Your task to perform on an android device: Search for logitech g pro on bestbuy.com, select the first entry, and add it to the cart. Image 0: 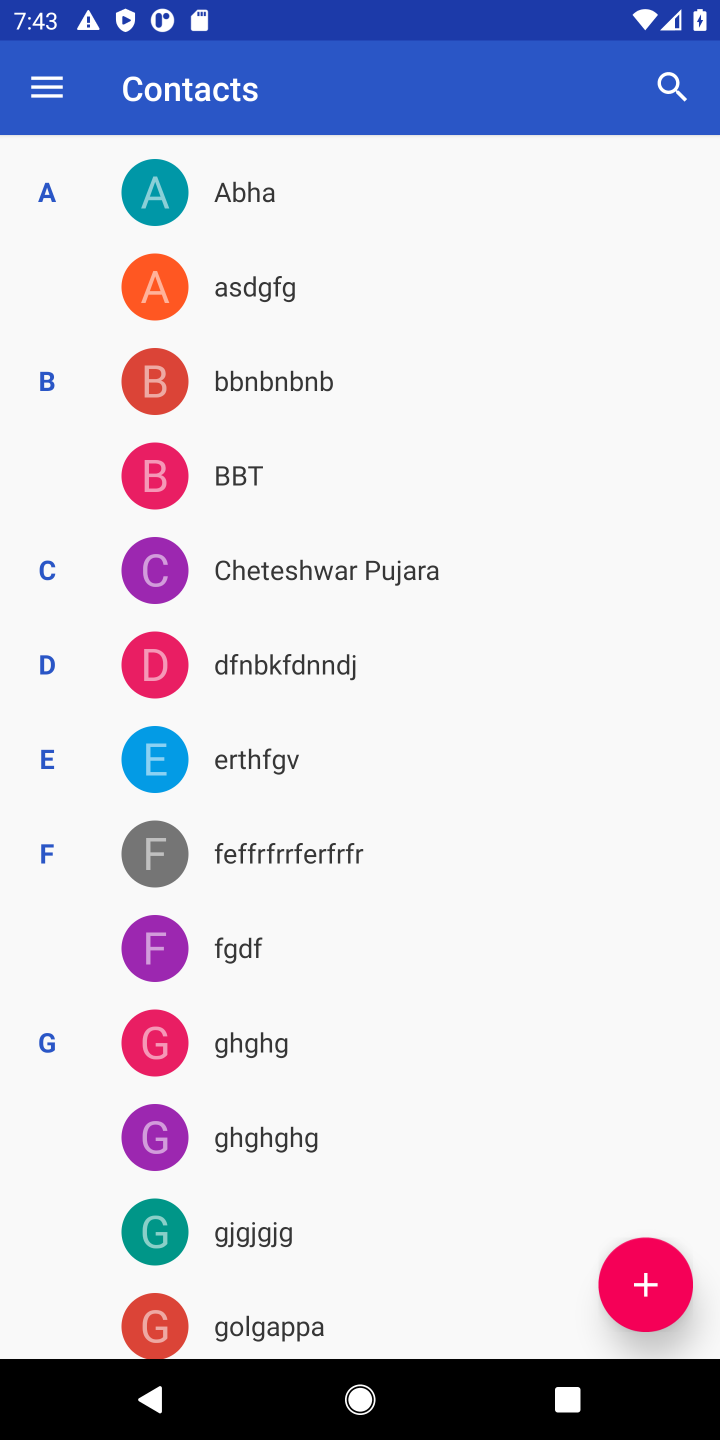
Step 0: press home button
Your task to perform on an android device: Search for logitech g pro on bestbuy.com, select the first entry, and add it to the cart. Image 1: 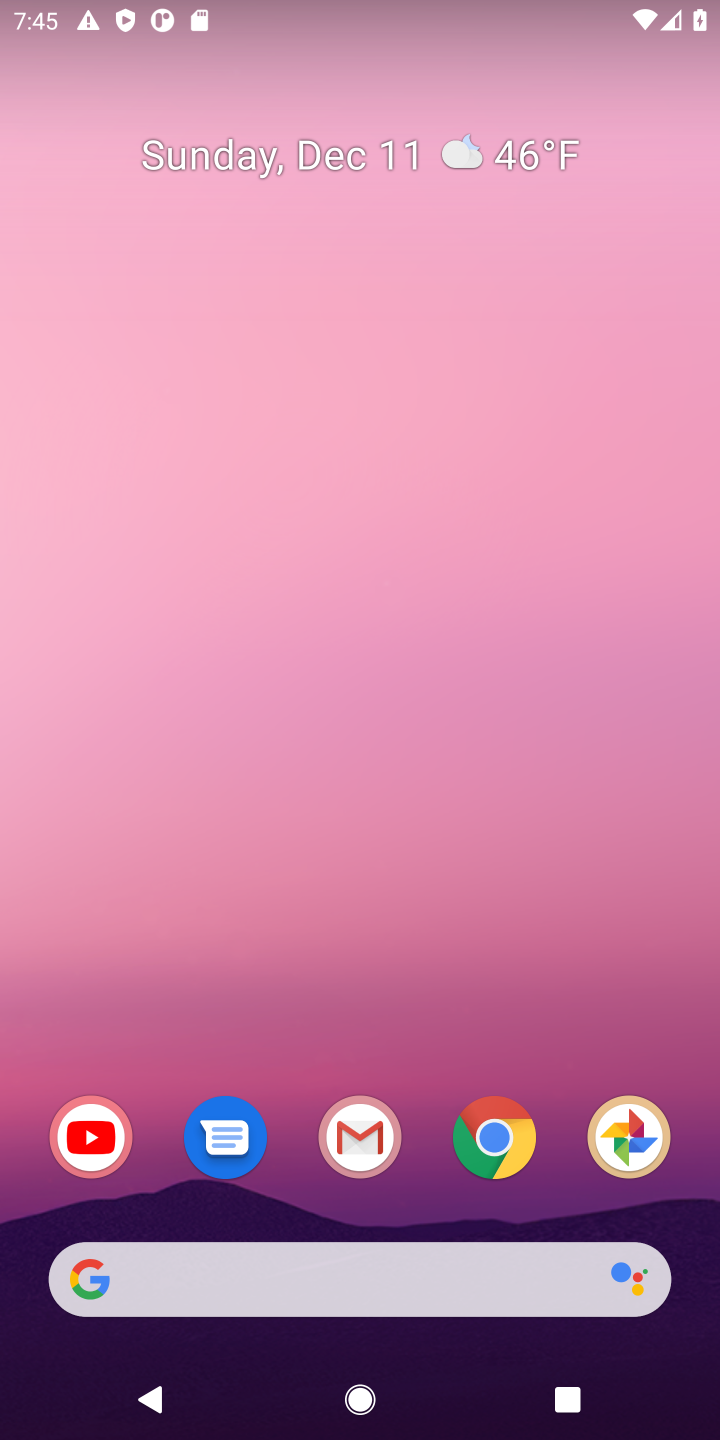
Step 1: click (500, 1138)
Your task to perform on an android device: Search for logitech g pro on bestbuy.com, select the first entry, and add it to the cart. Image 2: 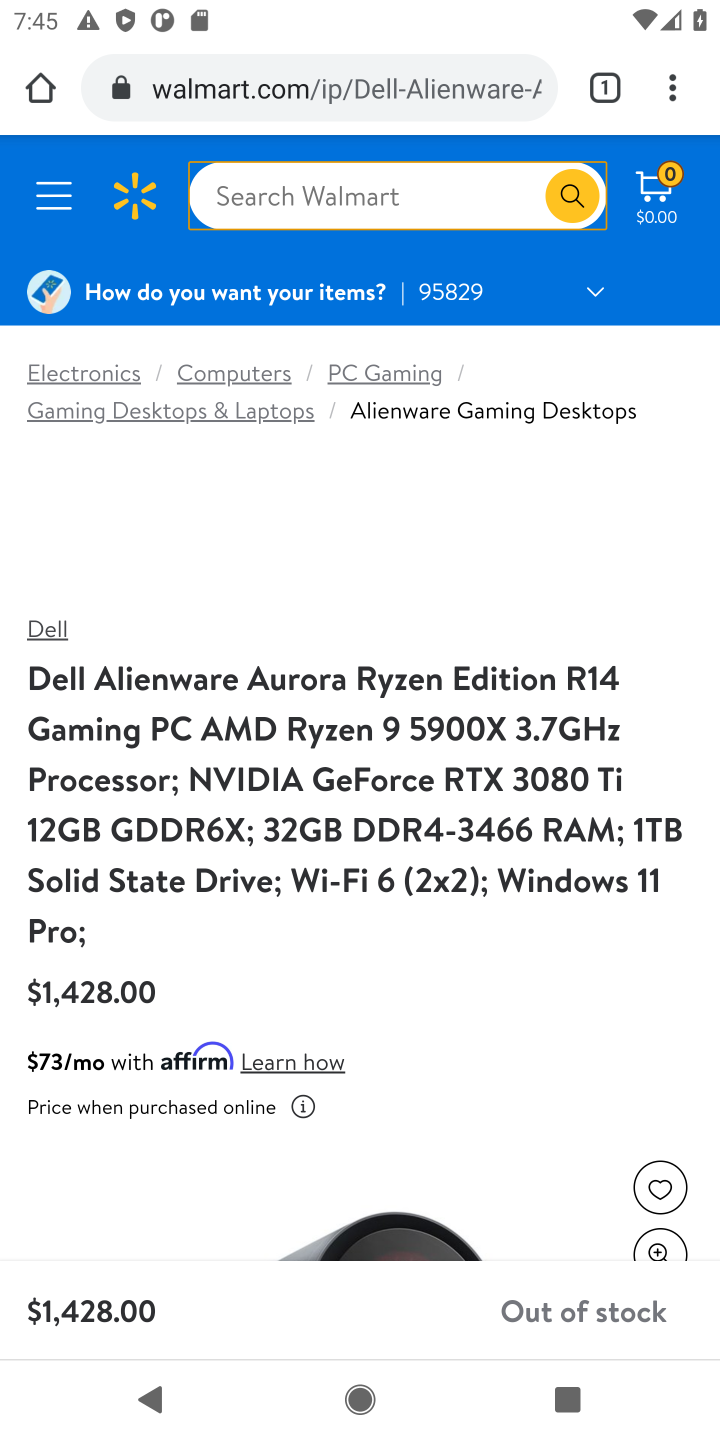
Step 2: click (308, 76)
Your task to perform on an android device: Search for logitech g pro on bestbuy.com, select the first entry, and add it to the cart. Image 3: 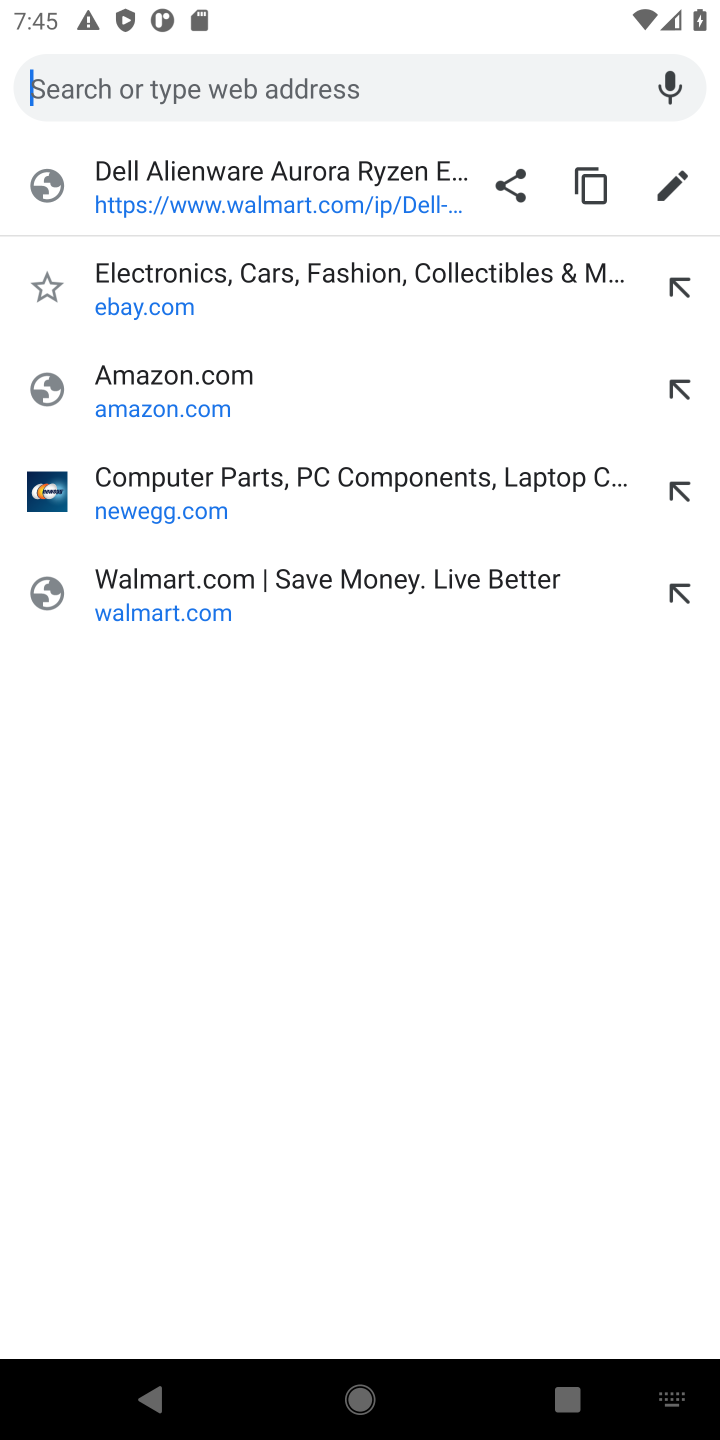
Step 3: click (357, 87)
Your task to perform on an android device: Search for logitech g pro on bestbuy.com, select the first entry, and add it to the cart. Image 4: 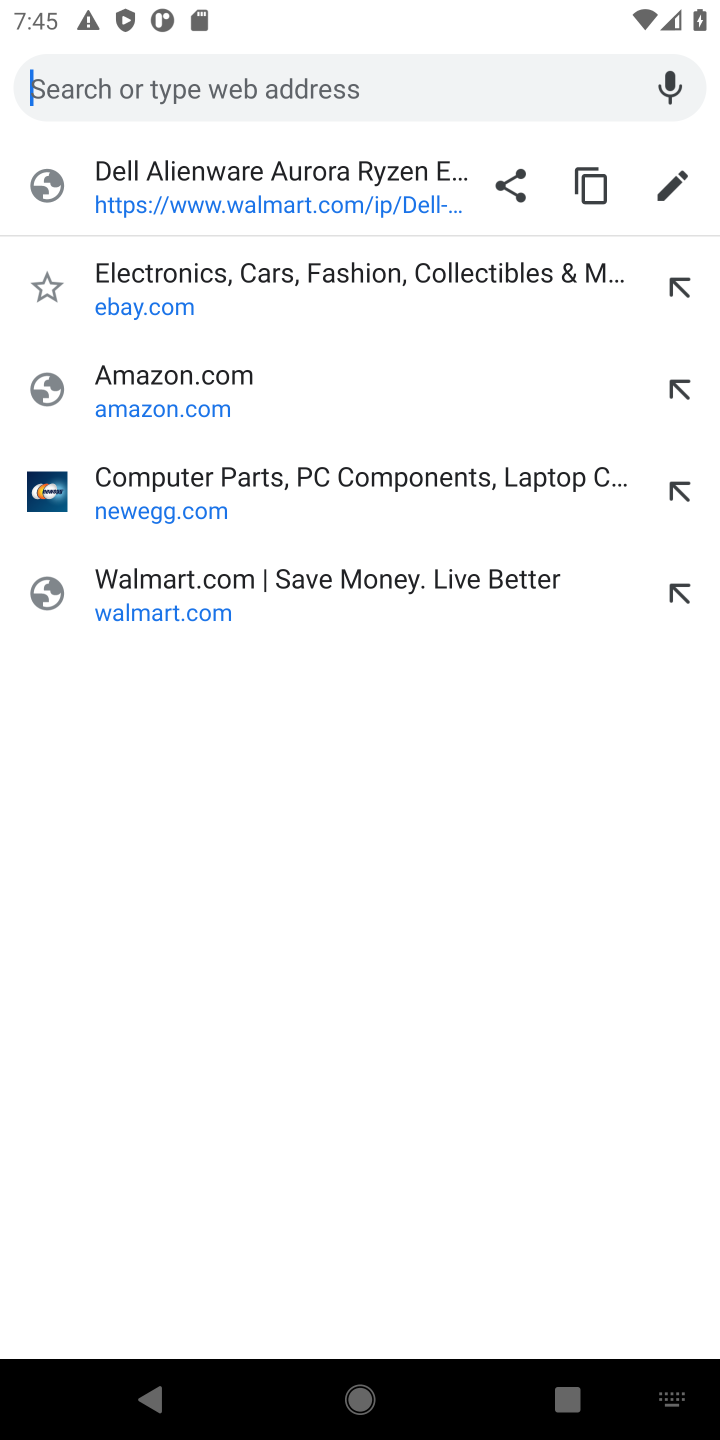
Step 4: click (441, 69)
Your task to perform on an android device: Search for logitech g pro on bestbuy.com, select the first entry, and add it to the cart. Image 5: 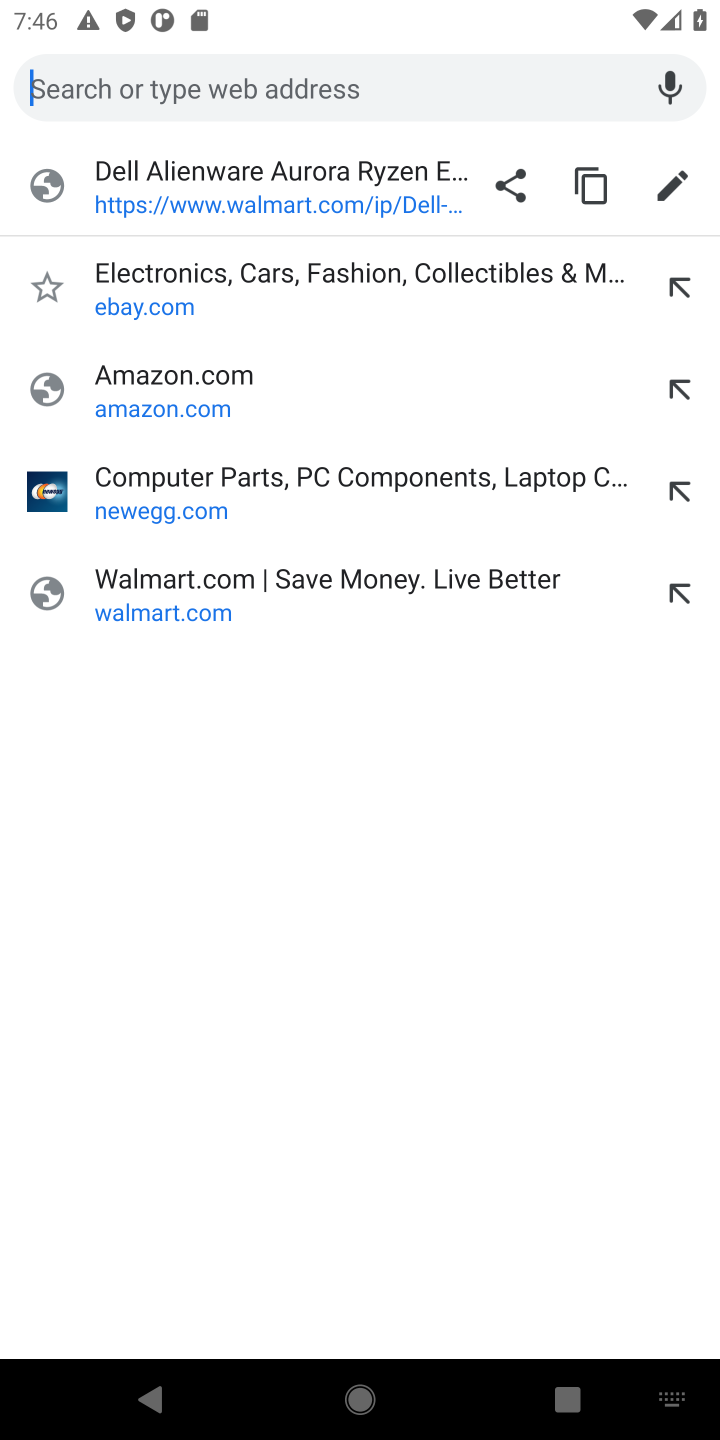
Step 5: type "BESTBUY"
Your task to perform on an android device: Search for logitech g pro on bestbuy.com, select the first entry, and add it to the cart. Image 6: 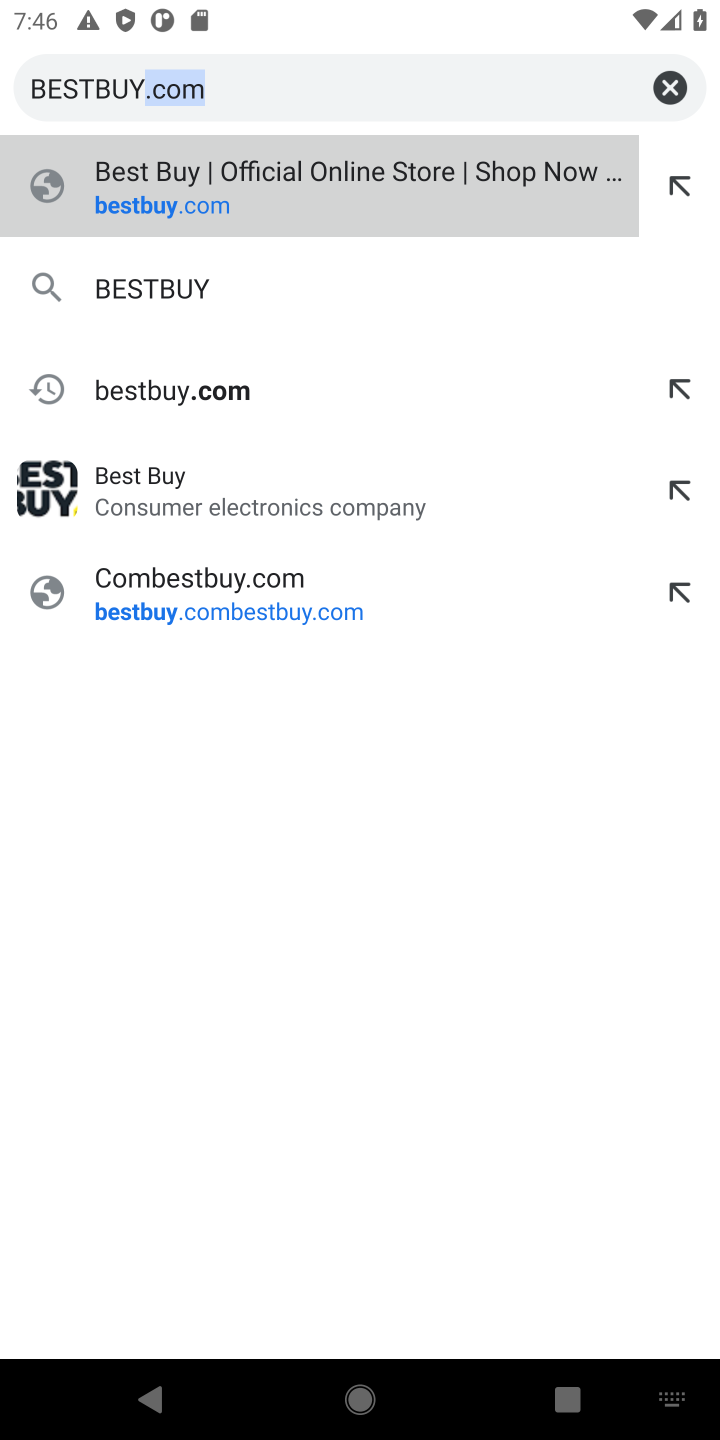
Step 6: click (311, 189)
Your task to perform on an android device: Search for logitech g pro on bestbuy.com, select the first entry, and add it to the cart. Image 7: 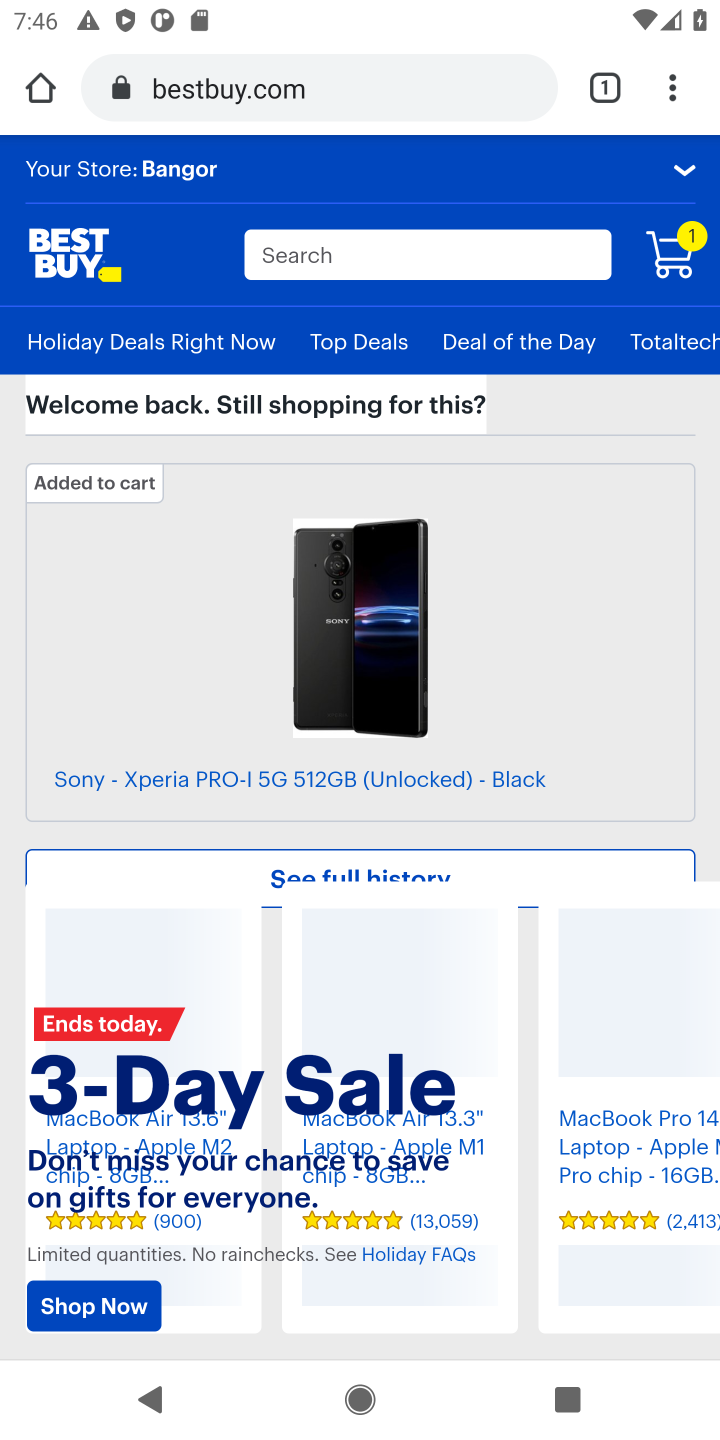
Step 7: click (349, 250)
Your task to perform on an android device: Search for logitech g pro on bestbuy.com, select the first entry, and add it to the cart. Image 8: 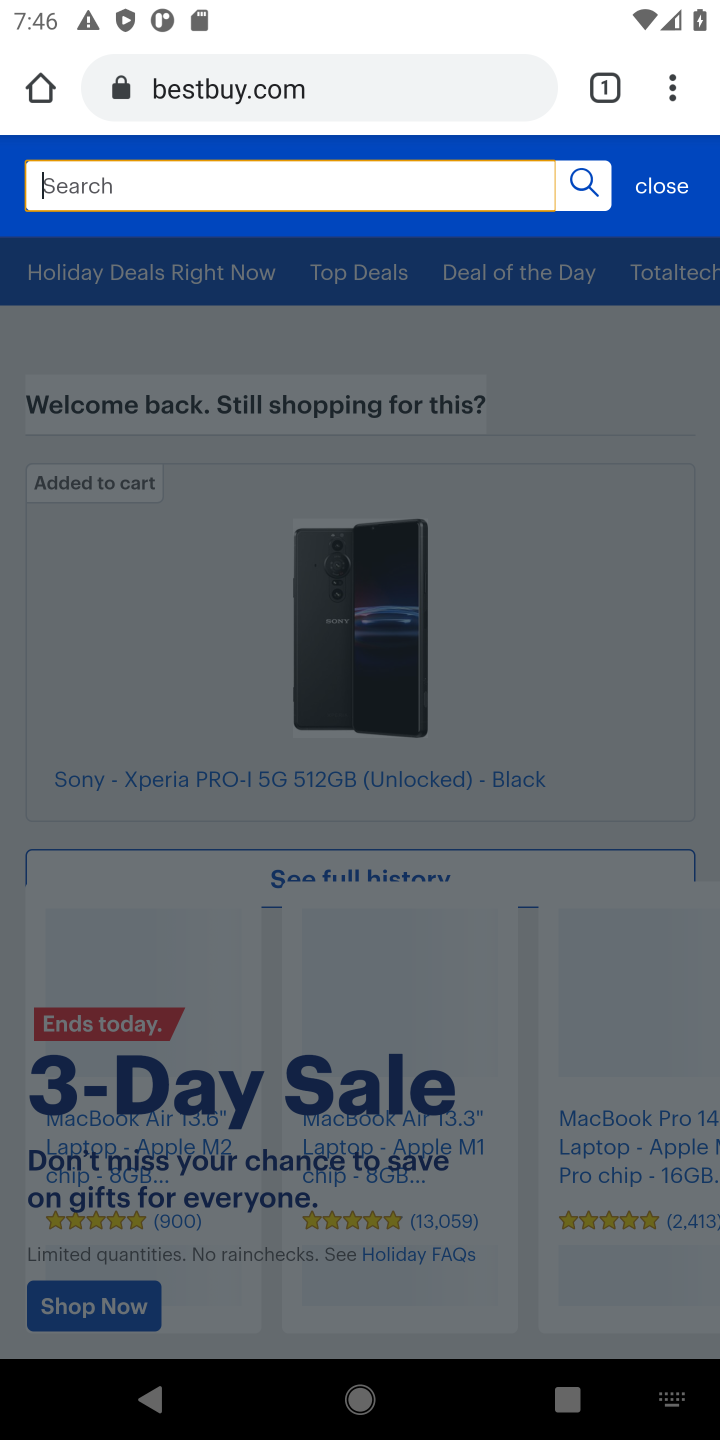
Step 8: type "LOGITECH G PRO"
Your task to perform on an android device: Search for logitech g pro on bestbuy.com, select the first entry, and add it to the cart. Image 9: 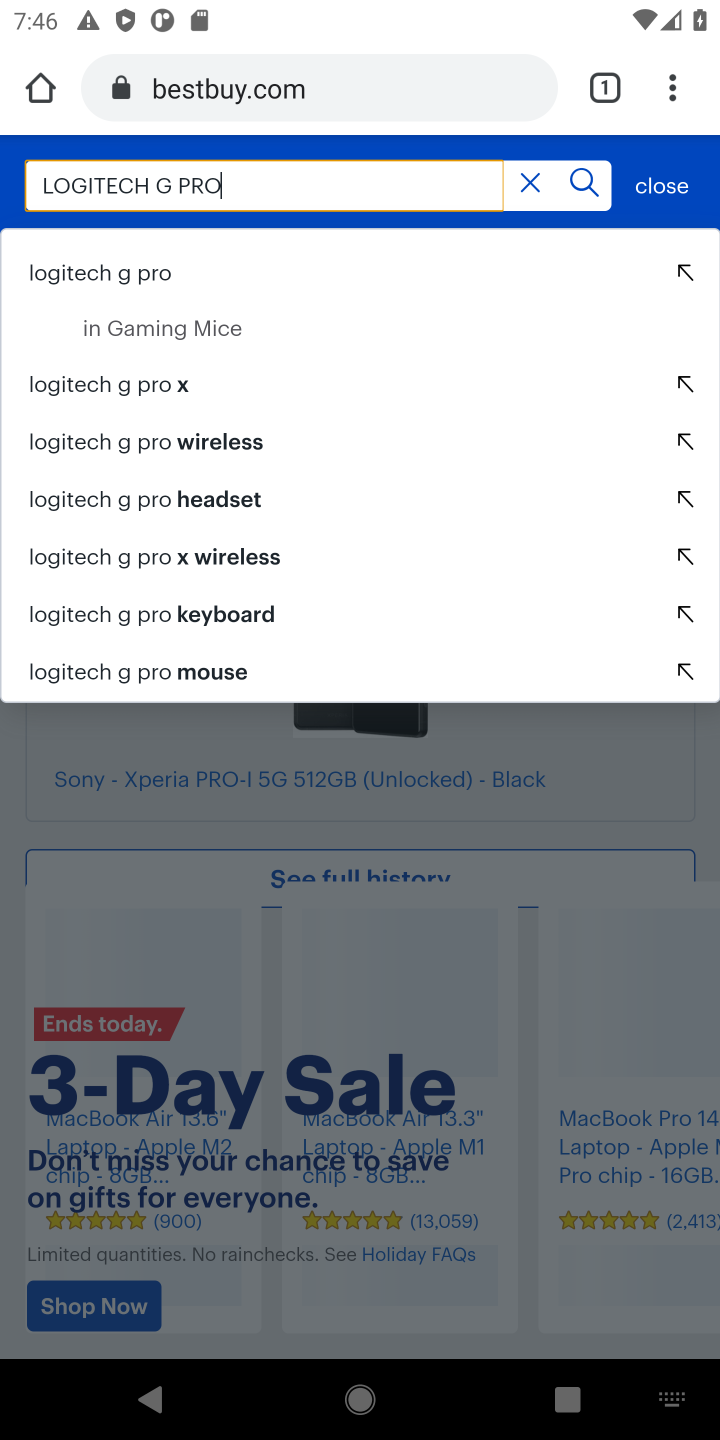
Step 9: click (89, 264)
Your task to perform on an android device: Search for logitech g pro on bestbuy.com, select the first entry, and add it to the cart. Image 10: 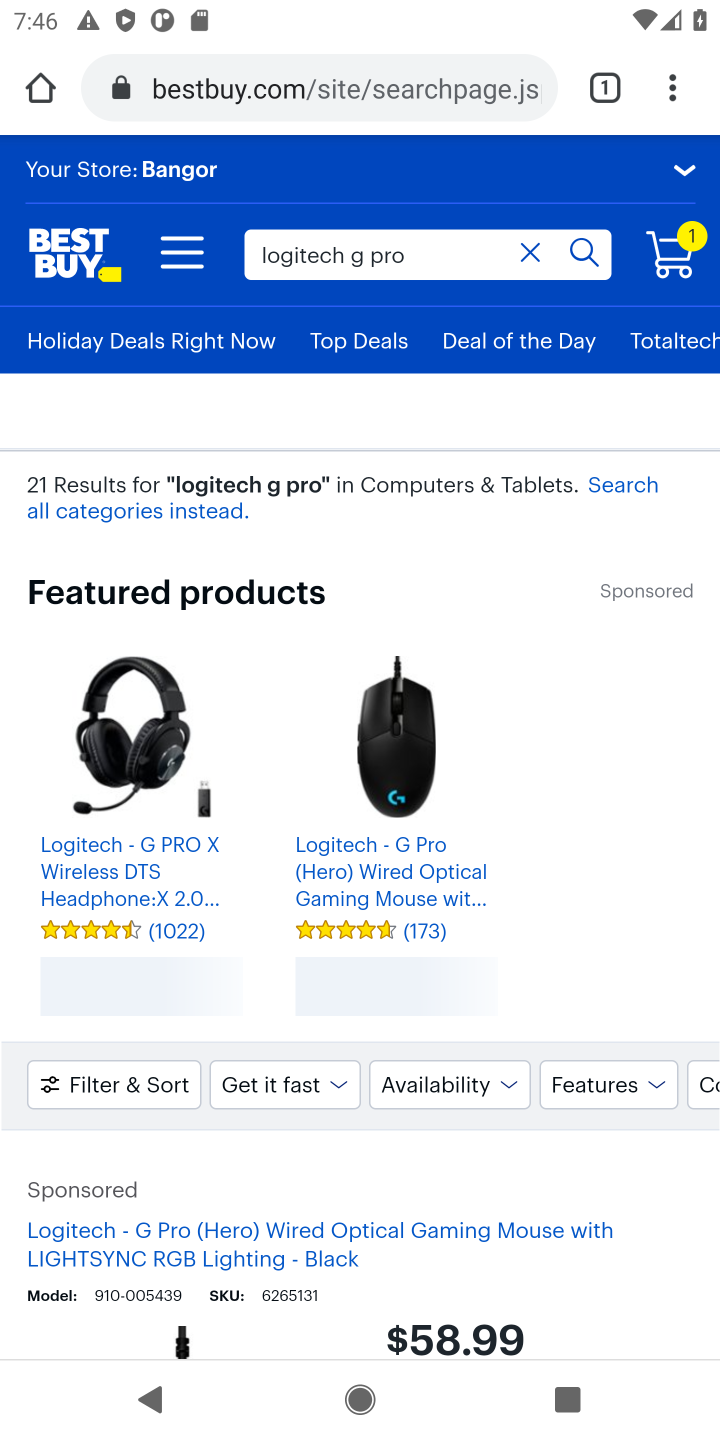
Step 10: drag from (350, 1271) to (412, 644)
Your task to perform on an android device: Search for logitech g pro on bestbuy.com, select the first entry, and add it to the cart. Image 11: 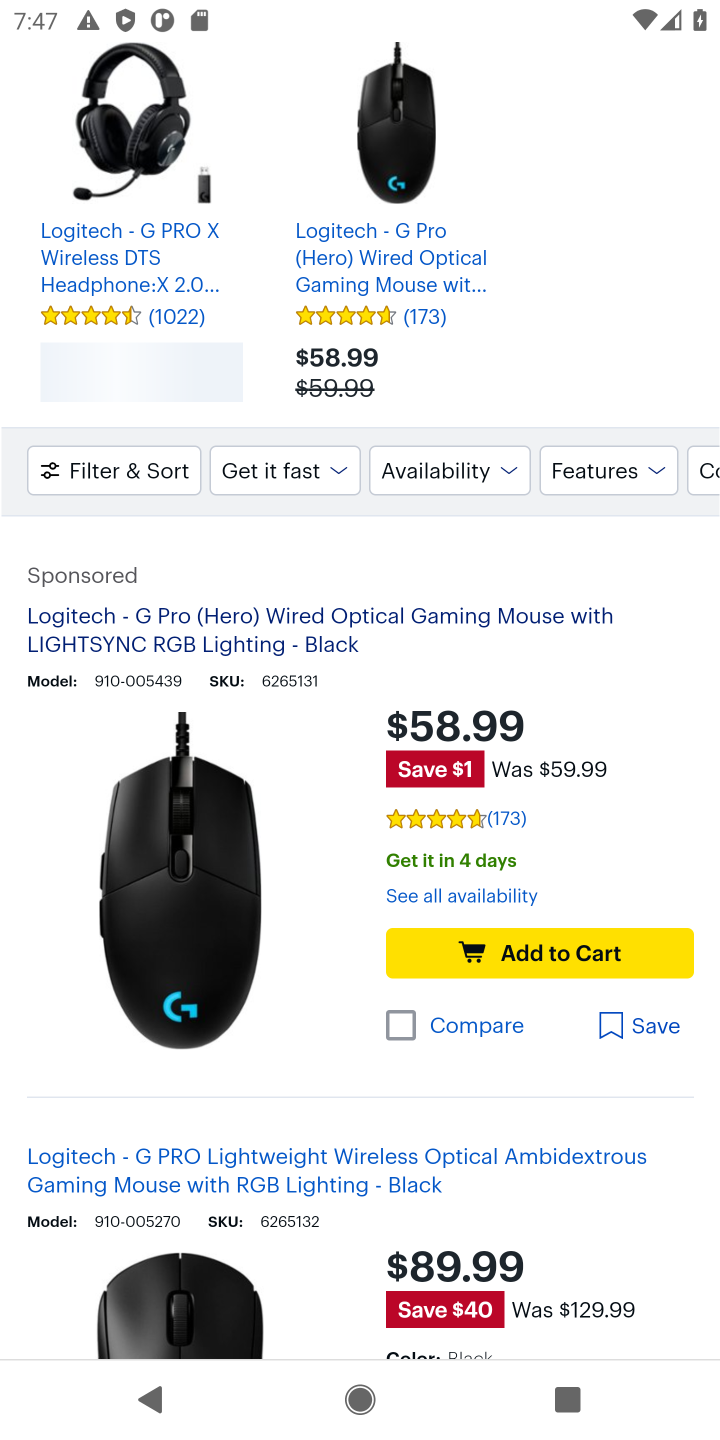
Step 11: click (518, 965)
Your task to perform on an android device: Search for logitech g pro on bestbuy.com, select the first entry, and add it to the cart. Image 12: 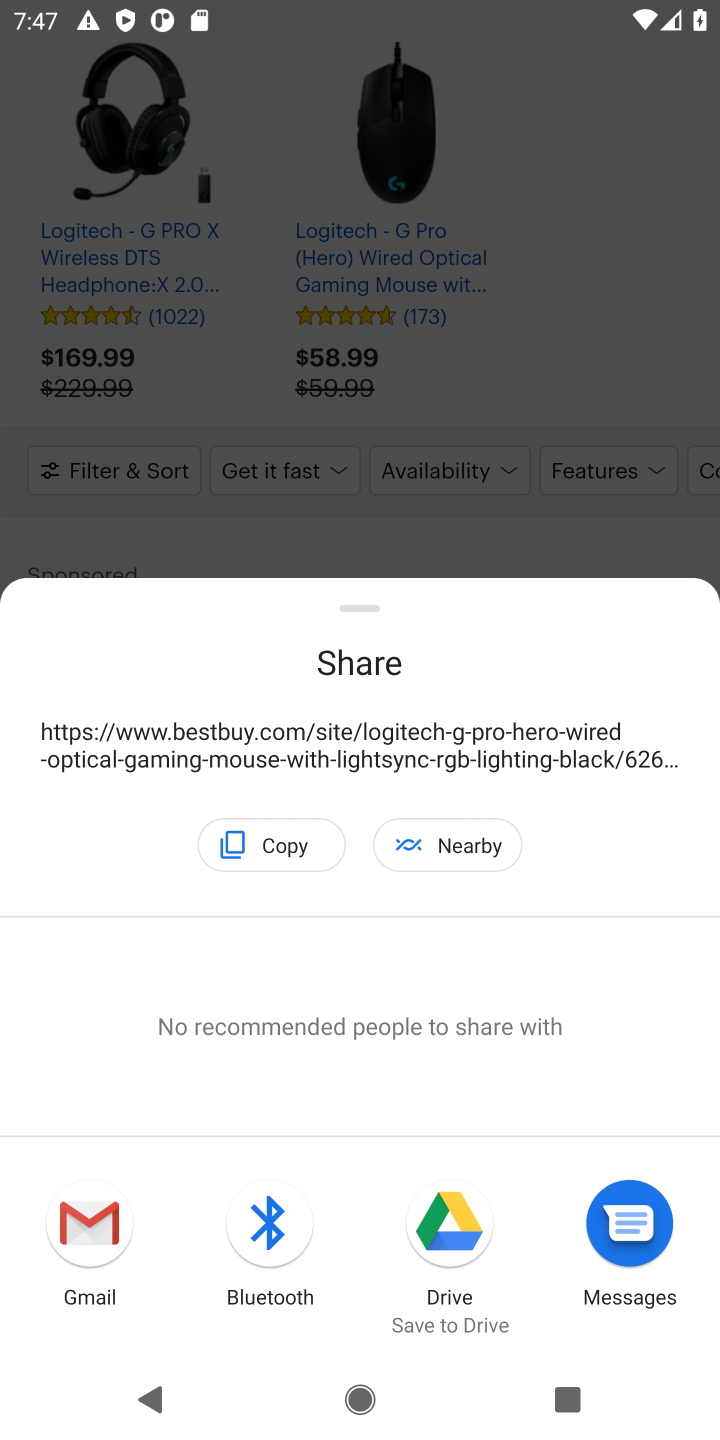
Step 12: click (580, 257)
Your task to perform on an android device: Search for logitech g pro on bestbuy.com, select the first entry, and add it to the cart. Image 13: 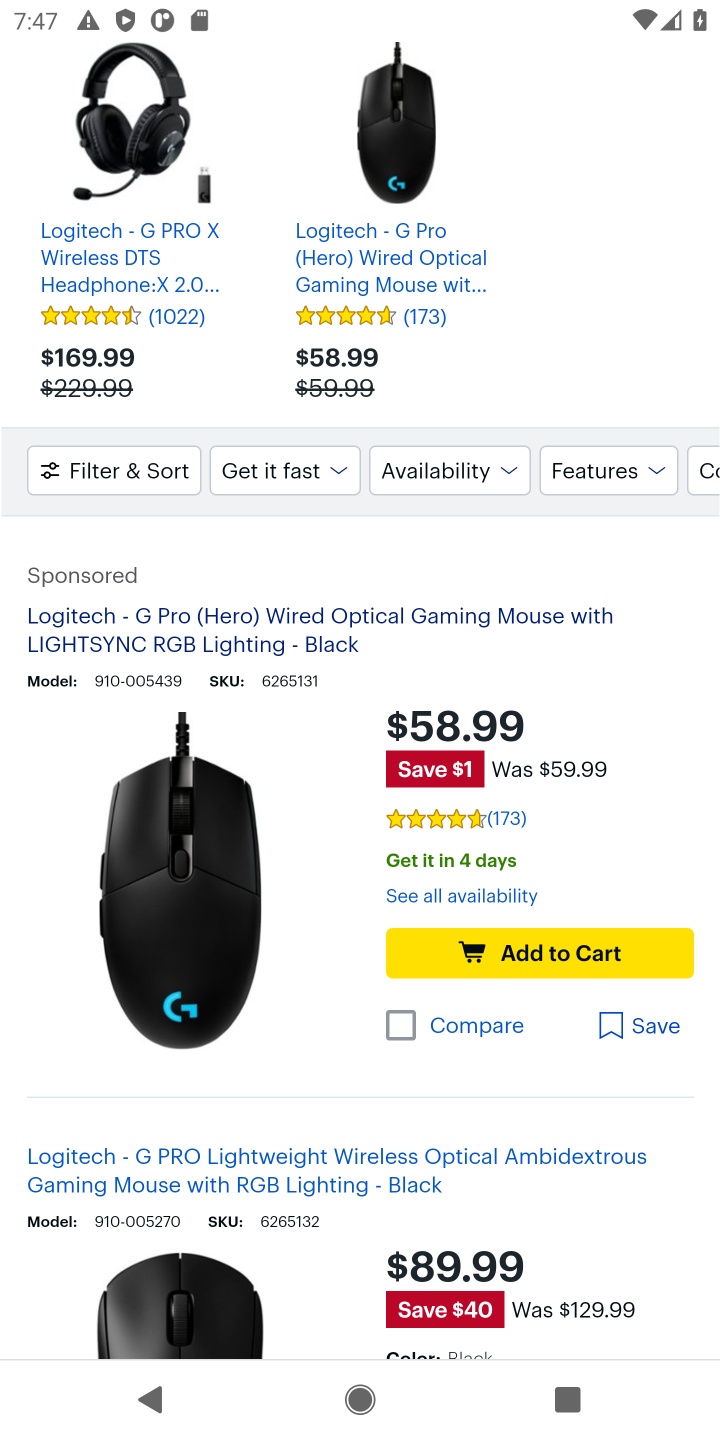
Step 13: click (537, 956)
Your task to perform on an android device: Search for logitech g pro on bestbuy.com, select the first entry, and add it to the cart. Image 14: 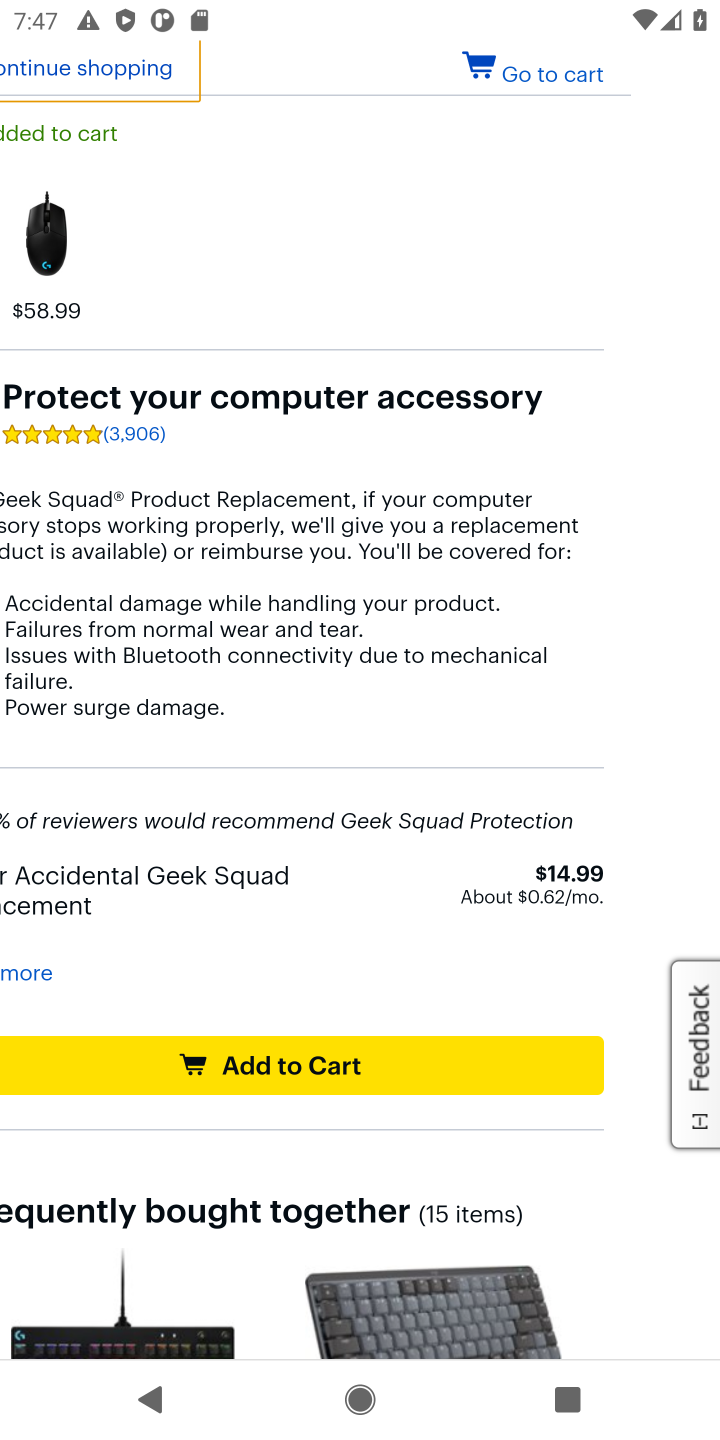
Step 14: task complete